Your task to perform on an android device: set default search engine in the chrome app Image 0: 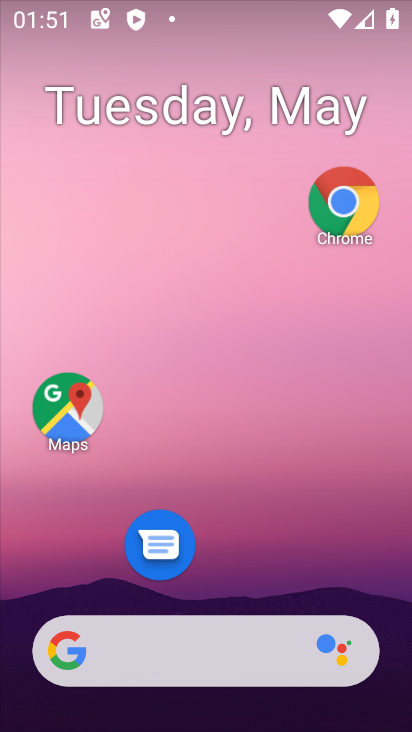
Step 0: click (55, 422)
Your task to perform on an android device: set default search engine in the chrome app Image 1: 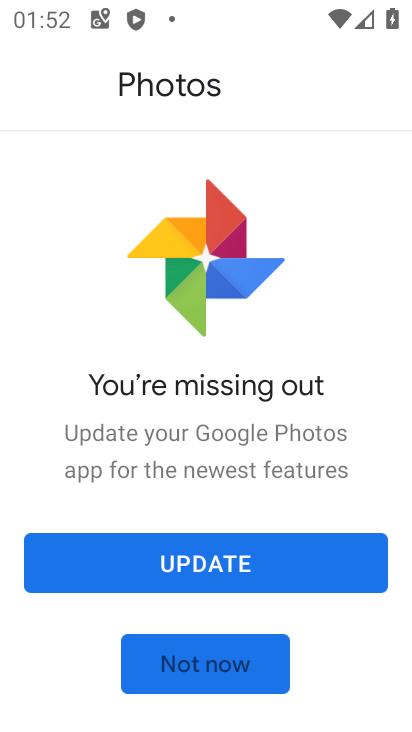
Step 1: click (179, 654)
Your task to perform on an android device: set default search engine in the chrome app Image 2: 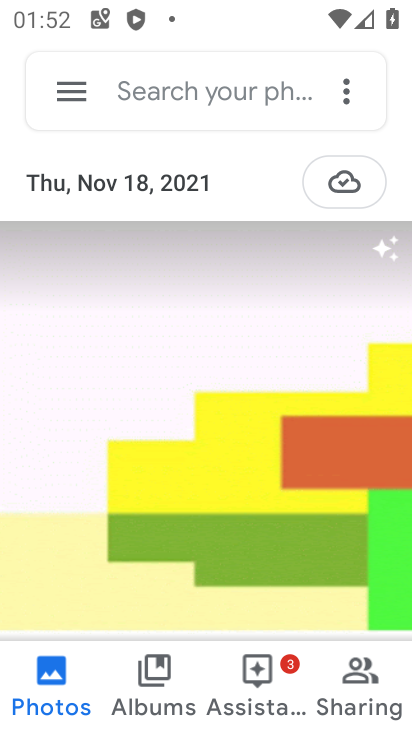
Step 2: press home button
Your task to perform on an android device: set default search engine in the chrome app Image 3: 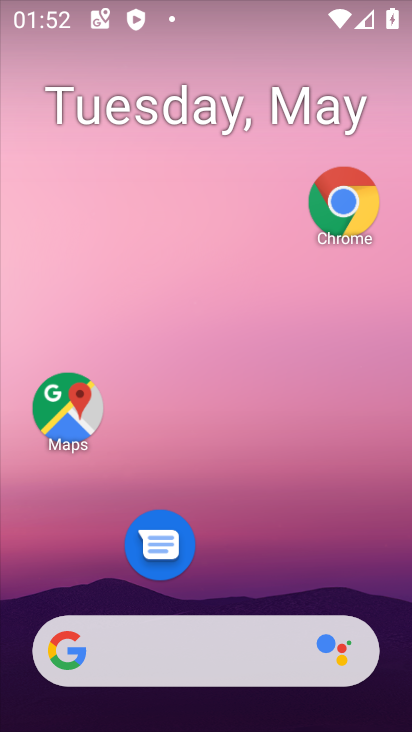
Step 3: click (321, 200)
Your task to perform on an android device: set default search engine in the chrome app Image 4: 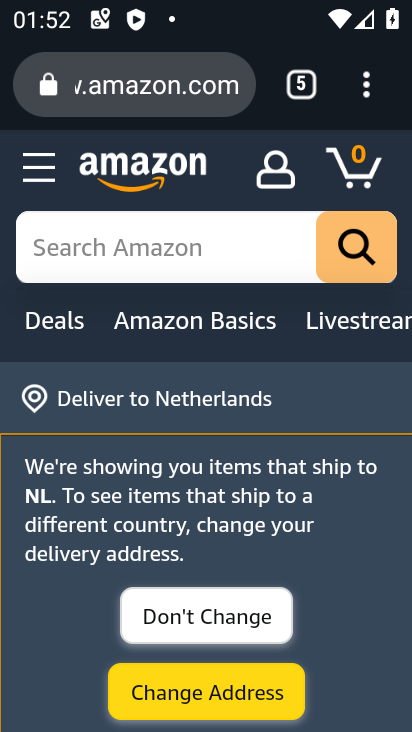
Step 4: click (385, 85)
Your task to perform on an android device: set default search engine in the chrome app Image 5: 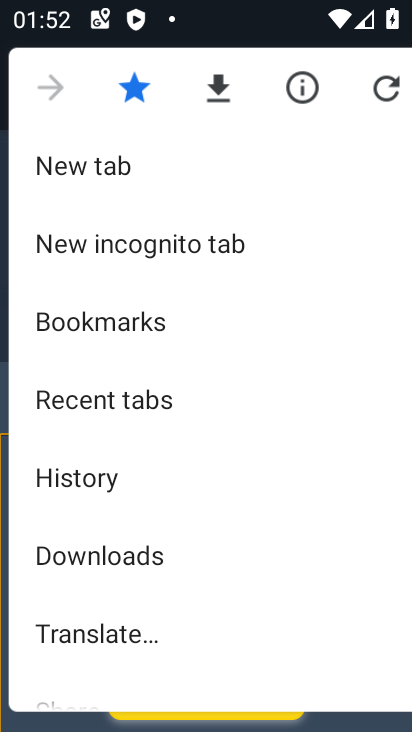
Step 5: drag from (90, 668) to (132, 284)
Your task to perform on an android device: set default search engine in the chrome app Image 6: 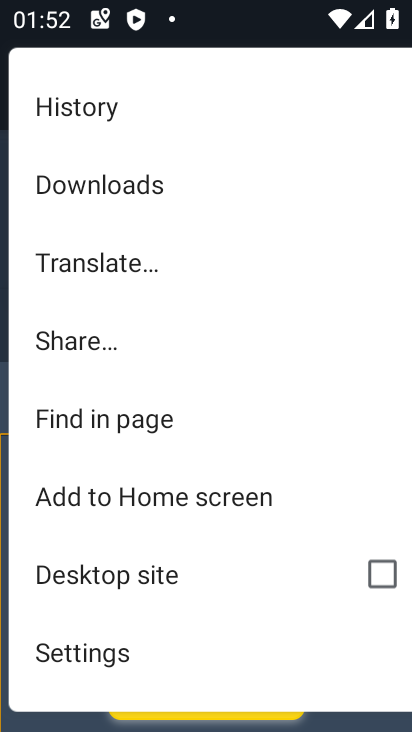
Step 6: click (57, 668)
Your task to perform on an android device: set default search engine in the chrome app Image 7: 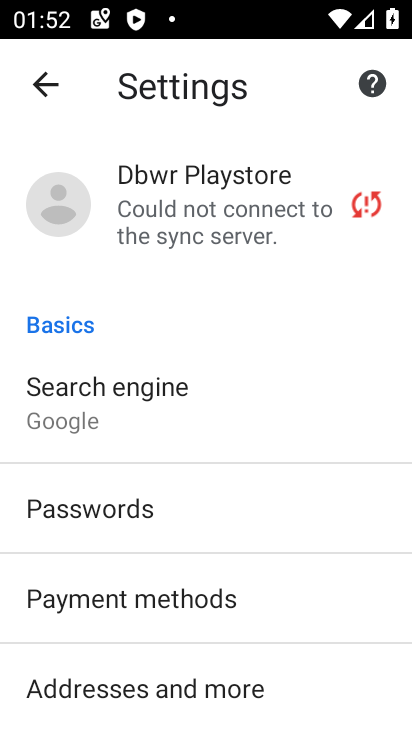
Step 7: click (131, 395)
Your task to perform on an android device: set default search engine in the chrome app Image 8: 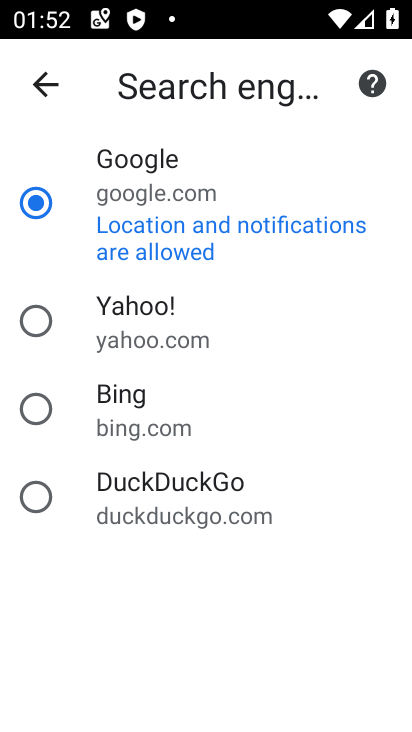
Step 8: click (184, 485)
Your task to perform on an android device: set default search engine in the chrome app Image 9: 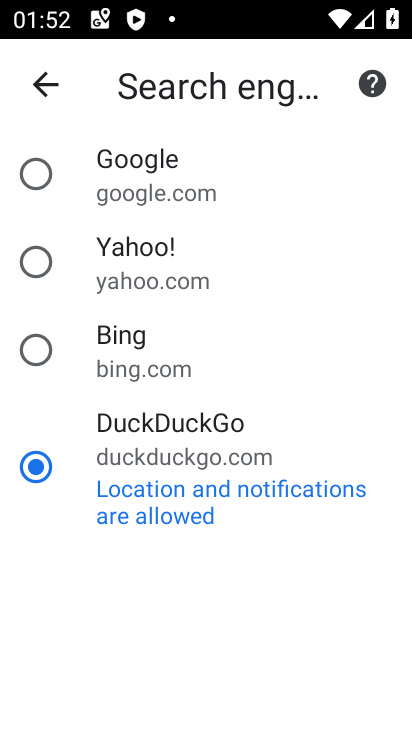
Step 9: task complete